Your task to perform on an android device: Open Google Chrome and open the bookmarks view Image 0: 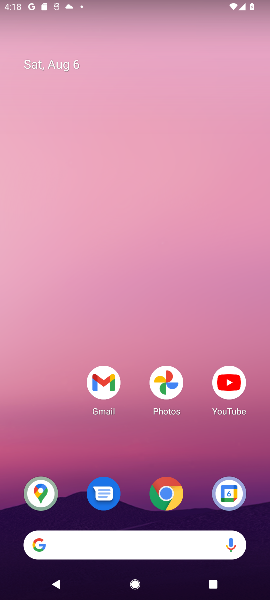
Step 0: drag from (210, 535) to (164, 298)
Your task to perform on an android device: Open Google Chrome and open the bookmarks view Image 1: 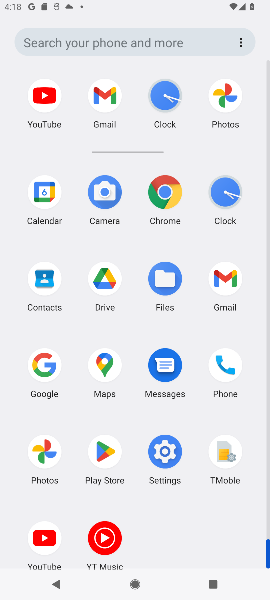
Step 1: drag from (167, 483) to (99, 124)
Your task to perform on an android device: Open Google Chrome and open the bookmarks view Image 2: 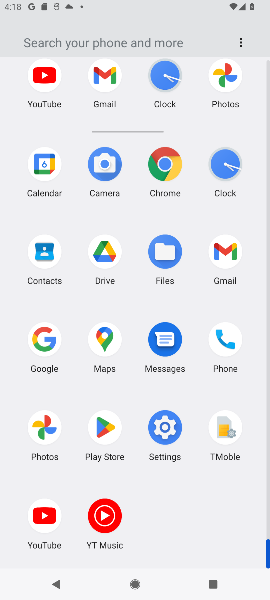
Step 2: drag from (182, 508) to (161, 169)
Your task to perform on an android device: Open Google Chrome and open the bookmarks view Image 3: 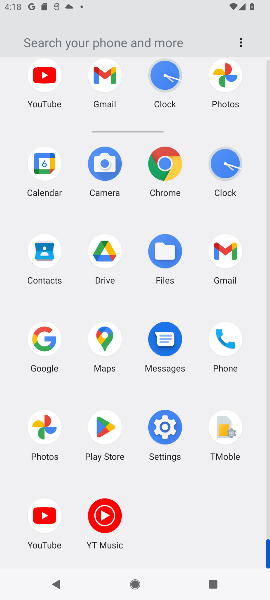
Step 3: drag from (201, 498) to (173, 269)
Your task to perform on an android device: Open Google Chrome and open the bookmarks view Image 4: 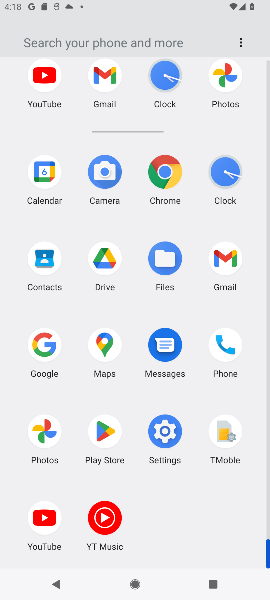
Step 4: click (163, 168)
Your task to perform on an android device: Open Google Chrome and open the bookmarks view Image 5: 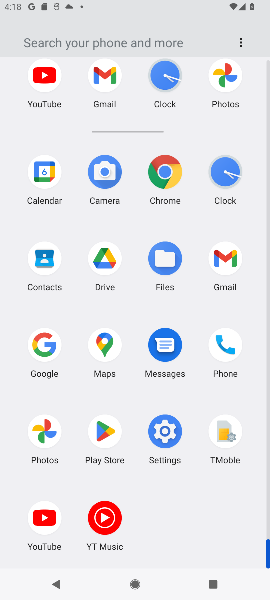
Step 5: click (163, 168)
Your task to perform on an android device: Open Google Chrome and open the bookmarks view Image 6: 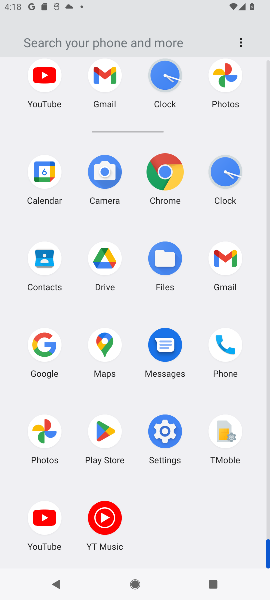
Step 6: click (164, 169)
Your task to perform on an android device: Open Google Chrome and open the bookmarks view Image 7: 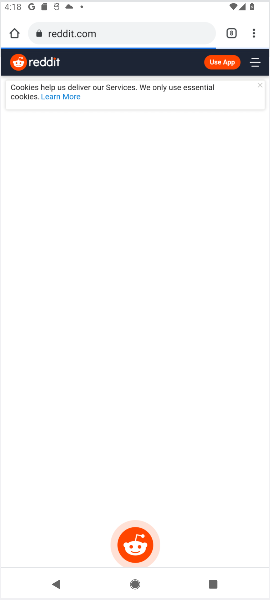
Step 7: click (164, 169)
Your task to perform on an android device: Open Google Chrome and open the bookmarks view Image 8: 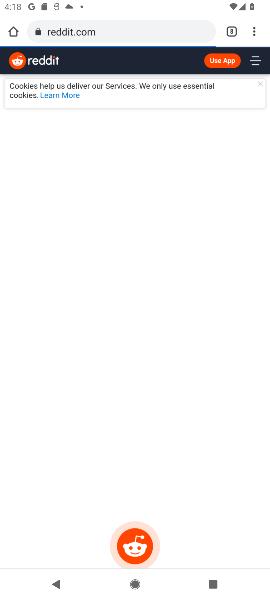
Step 8: click (166, 168)
Your task to perform on an android device: Open Google Chrome and open the bookmarks view Image 9: 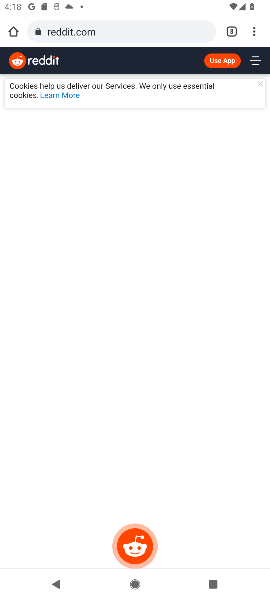
Step 9: click (166, 168)
Your task to perform on an android device: Open Google Chrome and open the bookmarks view Image 10: 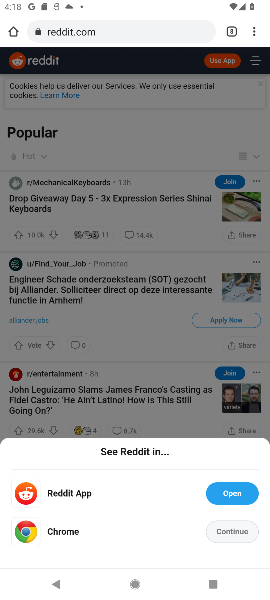
Step 10: drag from (257, 33) to (84, 395)
Your task to perform on an android device: Open Google Chrome and open the bookmarks view Image 11: 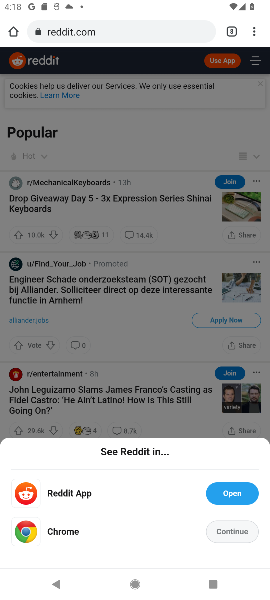
Step 11: click (255, 38)
Your task to perform on an android device: Open Google Chrome and open the bookmarks view Image 12: 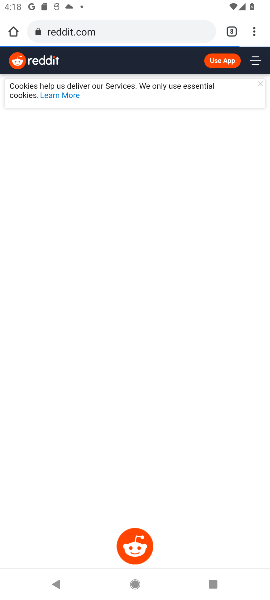
Step 12: drag from (254, 29) to (173, 107)
Your task to perform on an android device: Open Google Chrome and open the bookmarks view Image 13: 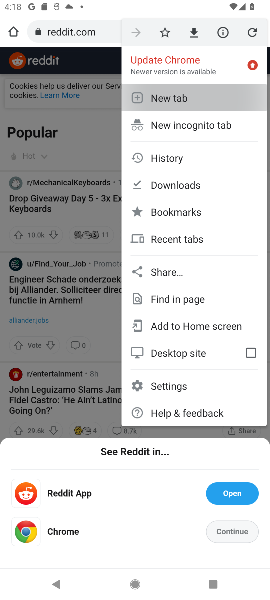
Step 13: click (175, 108)
Your task to perform on an android device: Open Google Chrome and open the bookmarks view Image 14: 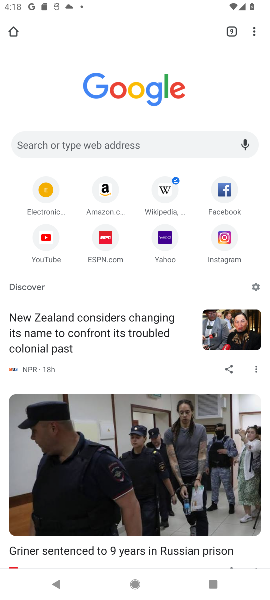
Step 14: drag from (254, 28) to (134, 325)
Your task to perform on an android device: Open Google Chrome and open the bookmarks view Image 15: 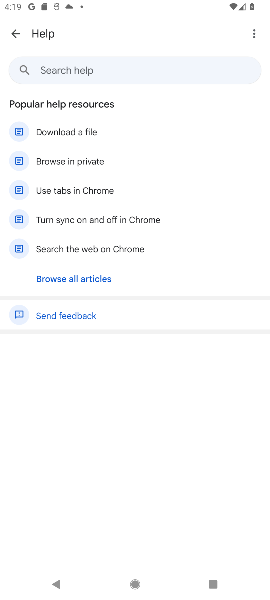
Step 15: click (18, 36)
Your task to perform on an android device: Open Google Chrome and open the bookmarks view Image 16: 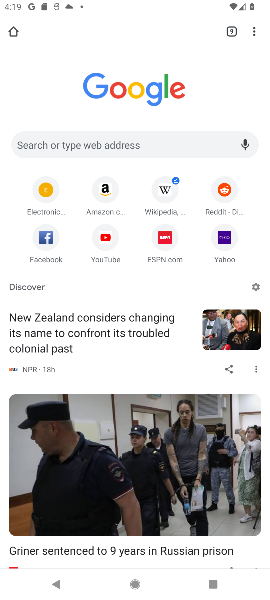
Step 16: click (7, 30)
Your task to perform on an android device: Open Google Chrome and open the bookmarks view Image 17: 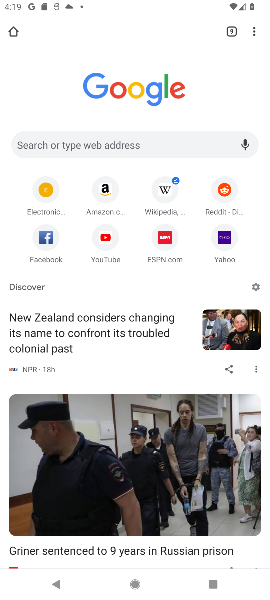
Step 17: drag from (254, 31) to (161, 102)
Your task to perform on an android device: Open Google Chrome and open the bookmarks view Image 18: 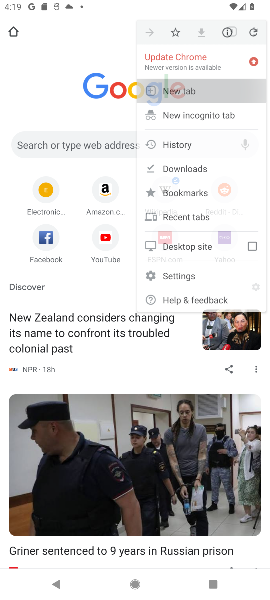
Step 18: click (176, 111)
Your task to perform on an android device: Open Google Chrome and open the bookmarks view Image 19: 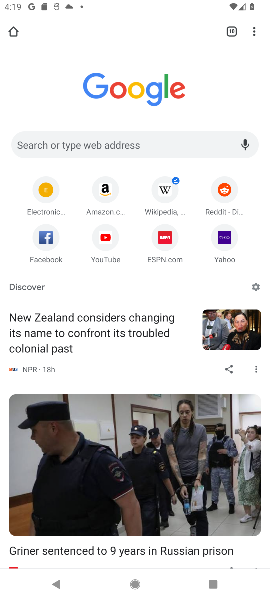
Step 19: drag from (254, 23) to (162, 211)
Your task to perform on an android device: Open Google Chrome and open the bookmarks view Image 20: 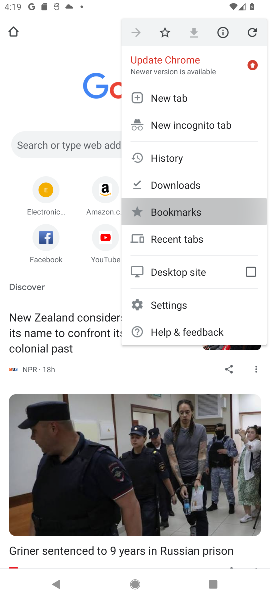
Step 20: click (172, 214)
Your task to perform on an android device: Open Google Chrome and open the bookmarks view Image 21: 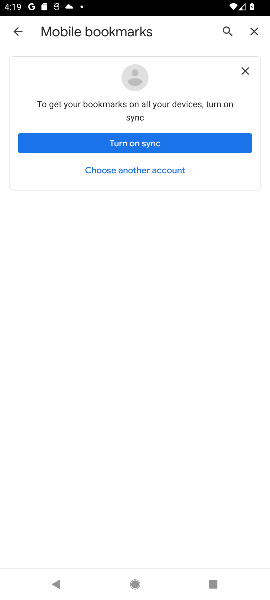
Step 21: click (242, 63)
Your task to perform on an android device: Open Google Chrome and open the bookmarks view Image 22: 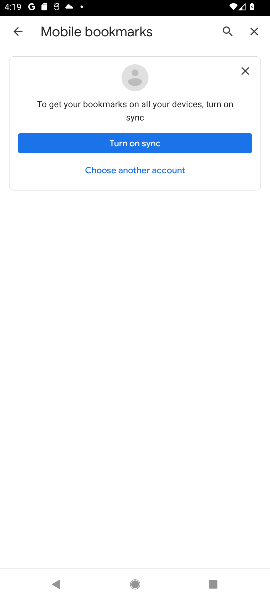
Step 22: task complete